Your task to perform on an android device: What's on my calendar tomorrow? Image 0: 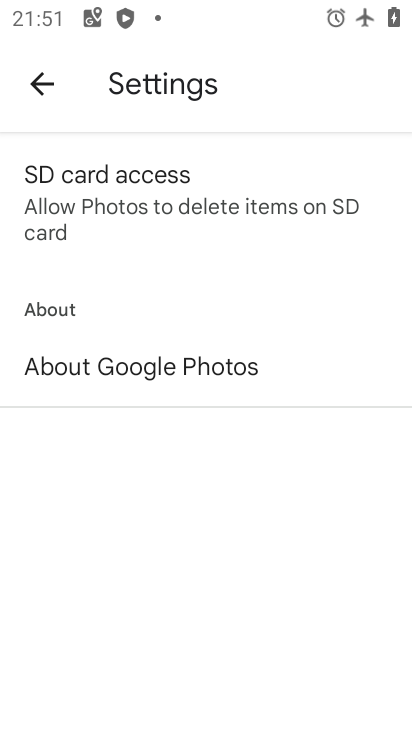
Step 0: press home button
Your task to perform on an android device: What's on my calendar tomorrow? Image 1: 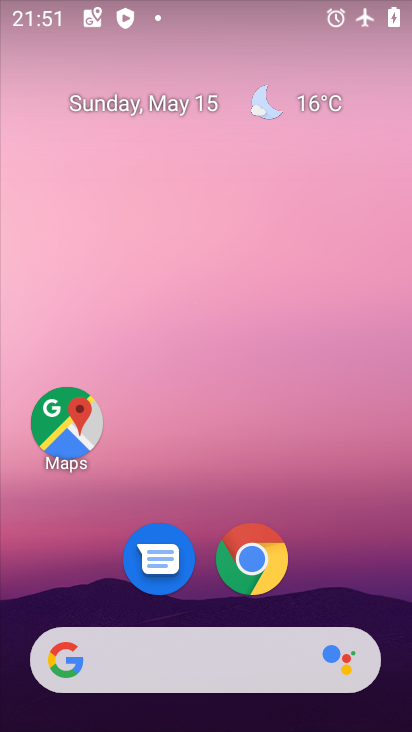
Step 1: drag from (201, 470) to (140, 2)
Your task to perform on an android device: What's on my calendar tomorrow? Image 2: 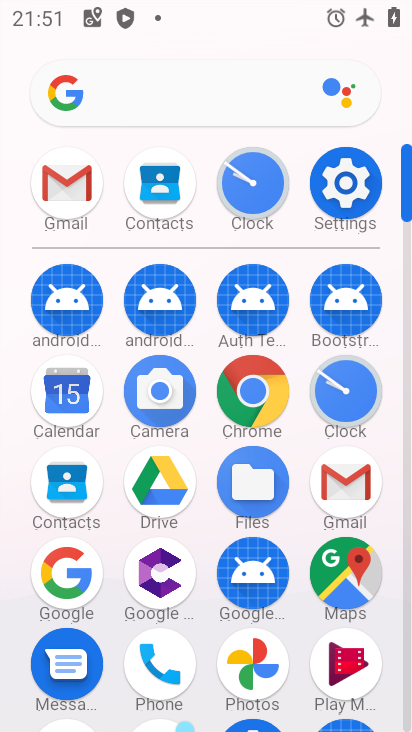
Step 2: click (70, 398)
Your task to perform on an android device: What's on my calendar tomorrow? Image 3: 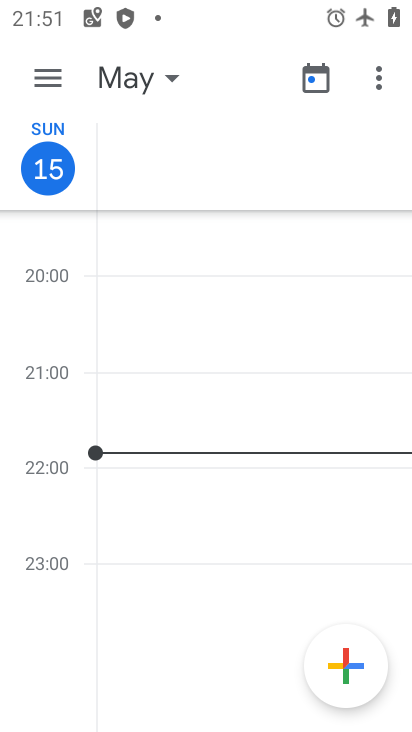
Step 3: click (175, 76)
Your task to perform on an android device: What's on my calendar tomorrow? Image 4: 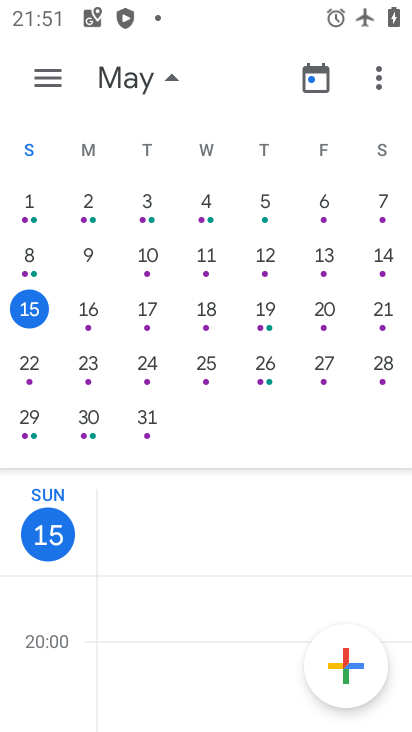
Step 4: click (83, 305)
Your task to perform on an android device: What's on my calendar tomorrow? Image 5: 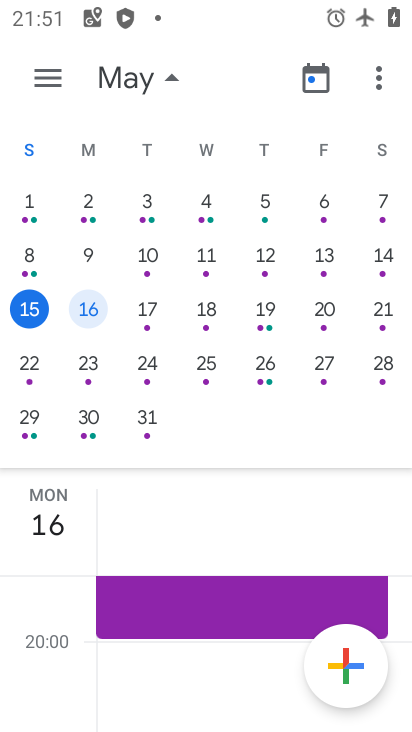
Step 5: task complete